Your task to perform on an android device: Search for sushi restaurants on Maps Image 0: 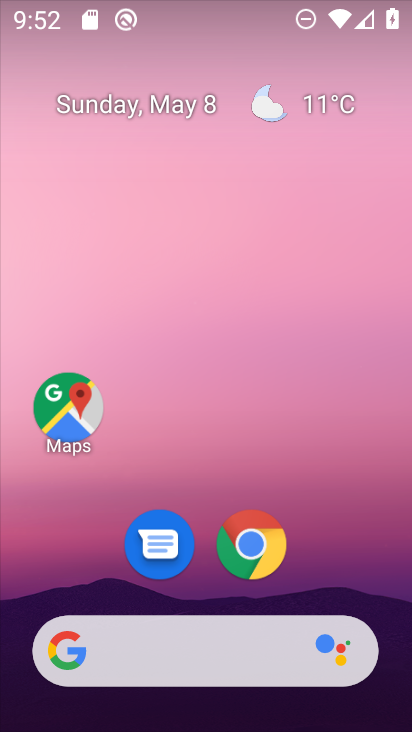
Step 0: click (260, 541)
Your task to perform on an android device: Search for sushi restaurants on Maps Image 1: 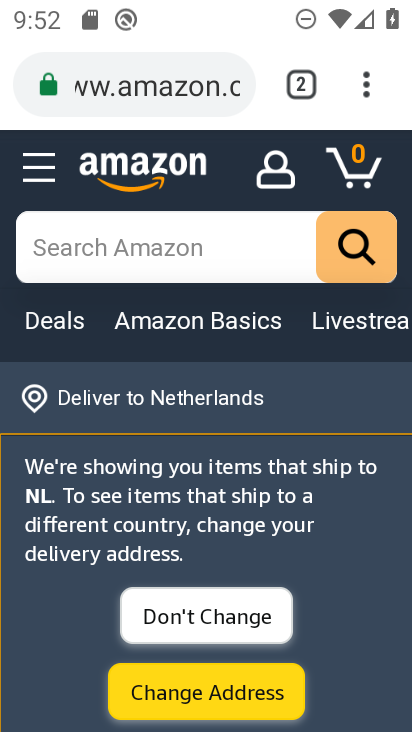
Step 1: press home button
Your task to perform on an android device: Search for sushi restaurants on Maps Image 2: 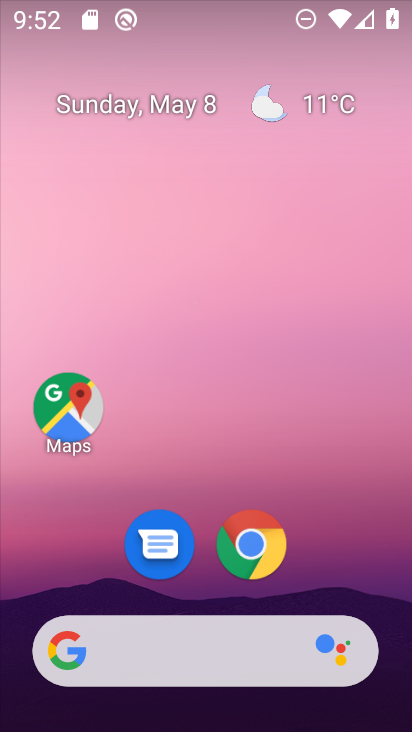
Step 2: drag from (331, 588) to (327, 268)
Your task to perform on an android device: Search for sushi restaurants on Maps Image 3: 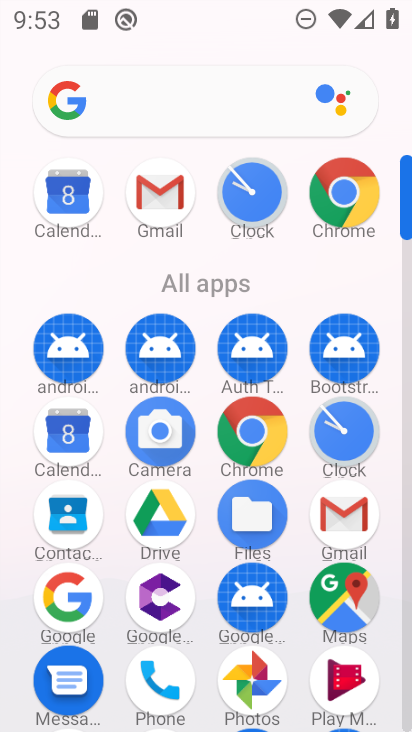
Step 3: click (354, 600)
Your task to perform on an android device: Search for sushi restaurants on Maps Image 4: 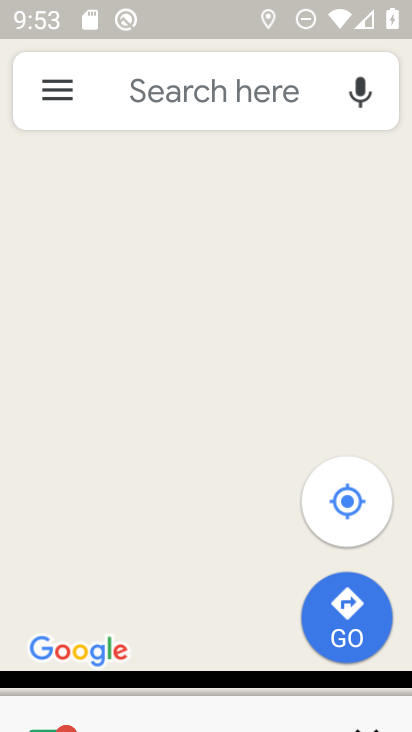
Step 4: click (167, 100)
Your task to perform on an android device: Search for sushi restaurants on Maps Image 5: 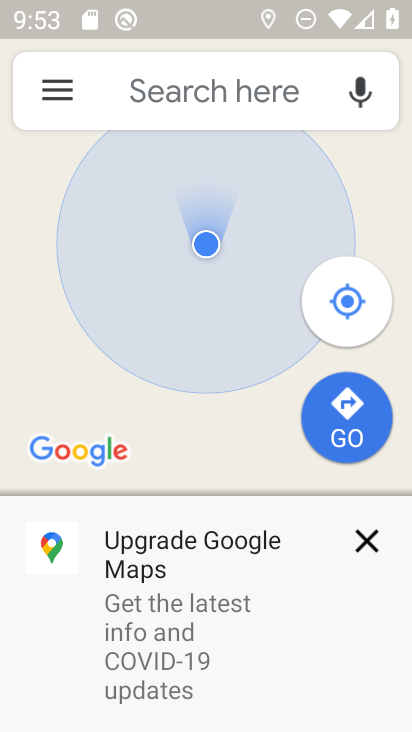
Step 5: click (167, 100)
Your task to perform on an android device: Search for sushi restaurants on Maps Image 6: 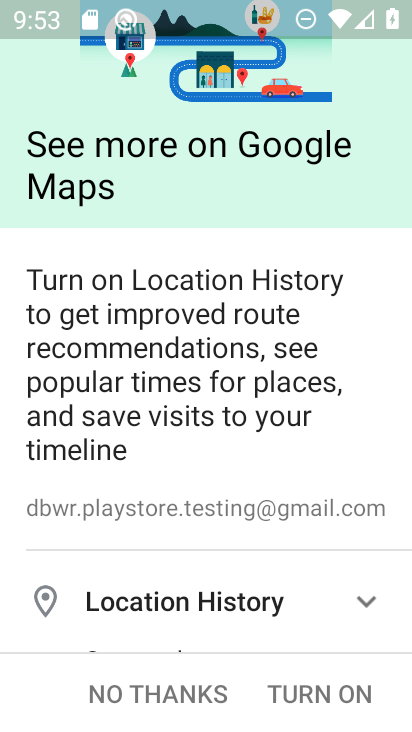
Step 6: click (128, 703)
Your task to perform on an android device: Search for sushi restaurants on Maps Image 7: 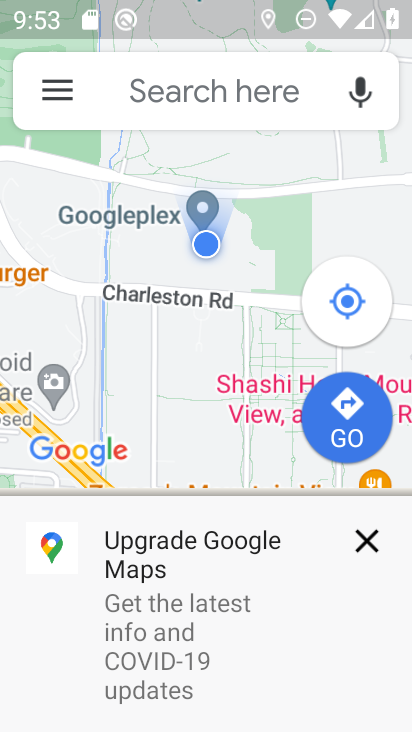
Step 7: click (150, 79)
Your task to perform on an android device: Search for sushi restaurants on Maps Image 8: 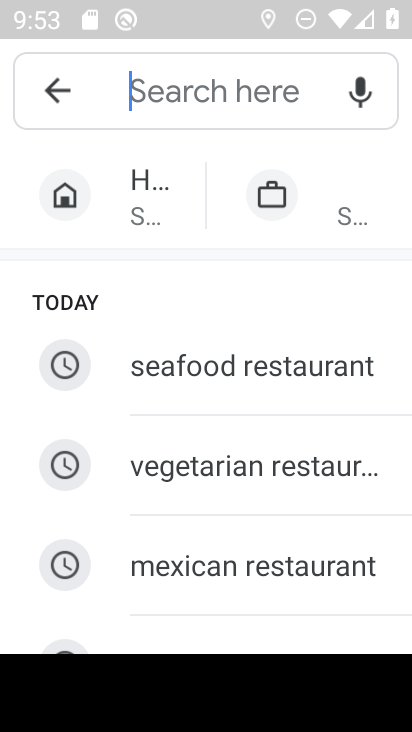
Step 8: type " sushi restaurants "
Your task to perform on an android device: Search for sushi restaurants on Maps Image 9: 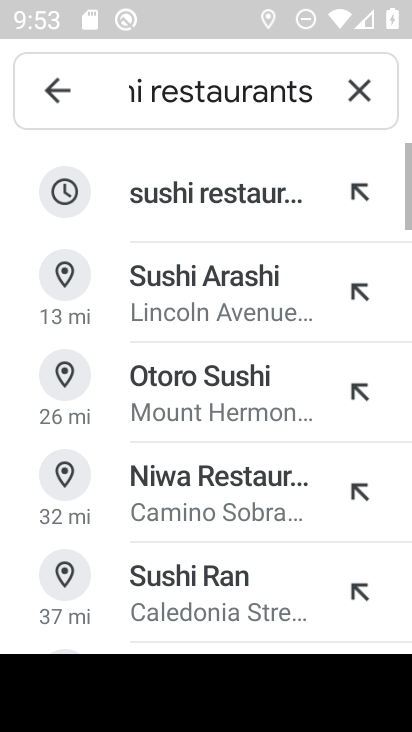
Step 9: click (207, 186)
Your task to perform on an android device: Search for sushi restaurants on Maps Image 10: 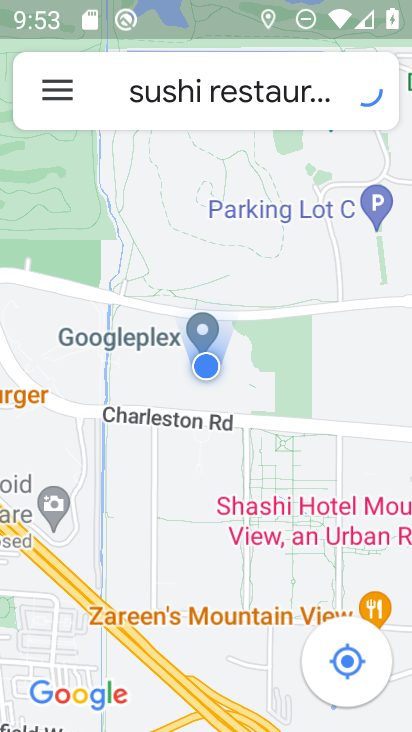
Step 10: task complete